Your task to perform on an android device: Go to Amazon Image 0: 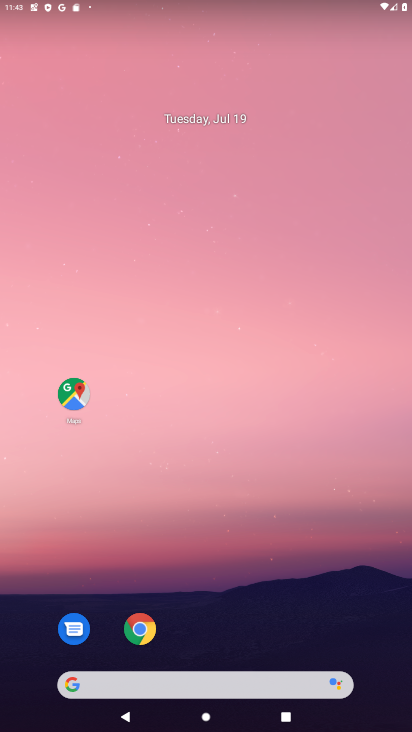
Step 0: click (143, 628)
Your task to perform on an android device: Go to Amazon Image 1: 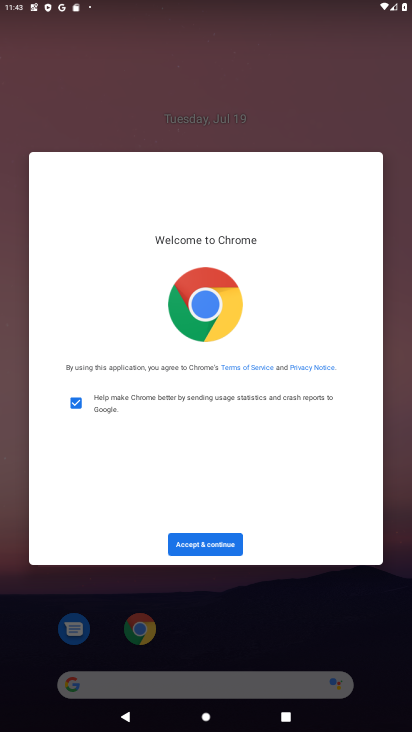
Step 1: click (193, 542)
Your task to perform on an android device: Go to Amazon Image 2: 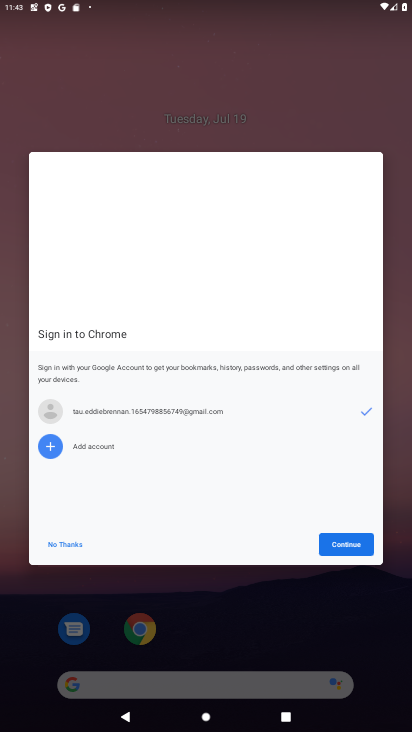
Step 2: click (341, 544)
Your task to perform on an android device: Go to Amazon Image 3: 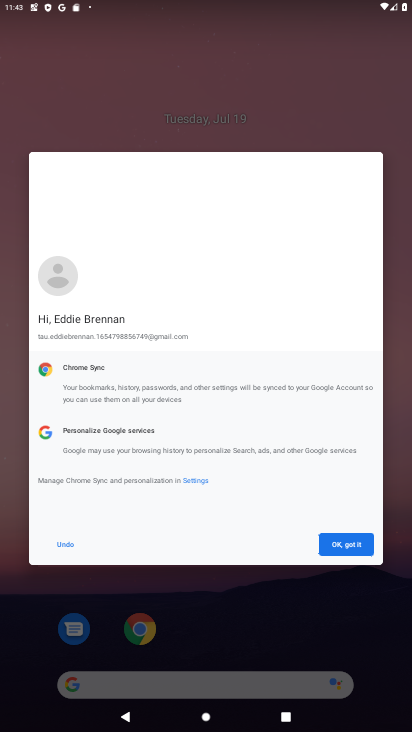
Step 3: click (357, 546)
Your task to perform on an android device: Go to Amazon Image 4: 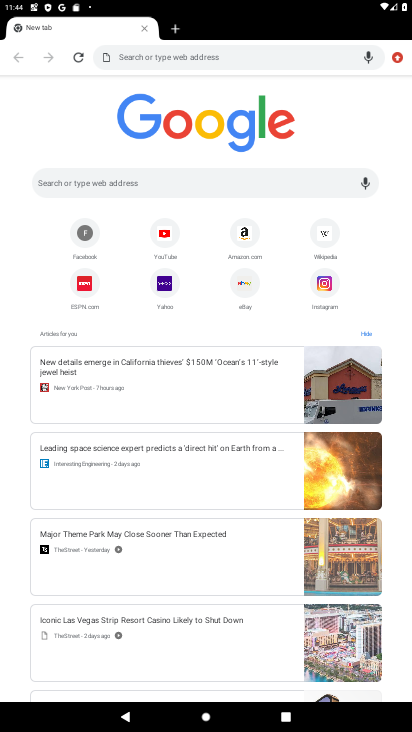
Step 4: click (239, 237)
Your task to perform on an android device: Go to Amazon Image 5: 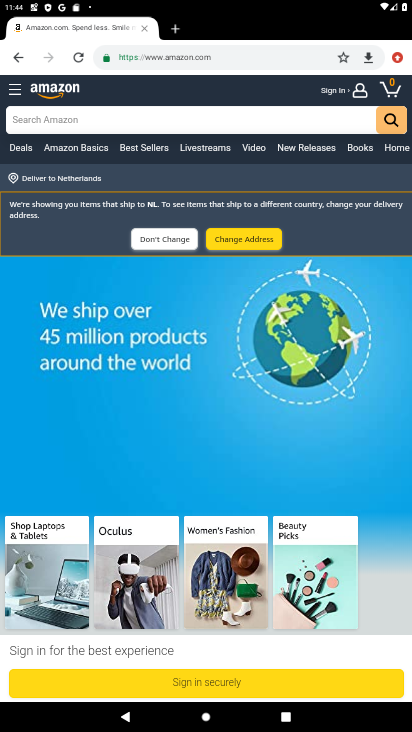
Step 5: task complete